Your task to perform on an android device: make emails show in primary in the gmail app Image 0: 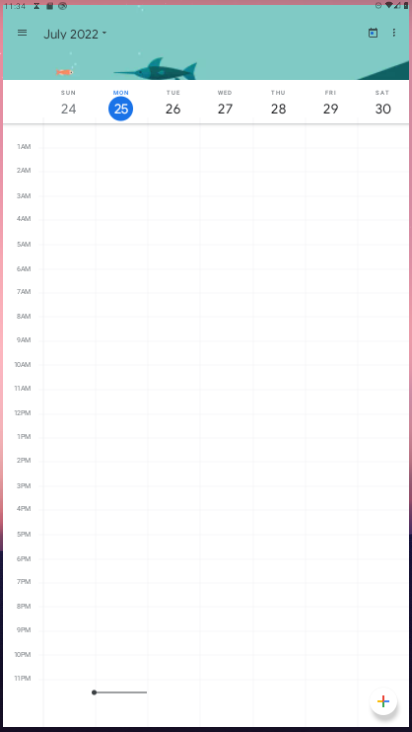
Step 0: press home button
Your task to perform on an android device: make emails show in primary in the gmail app Image 1: 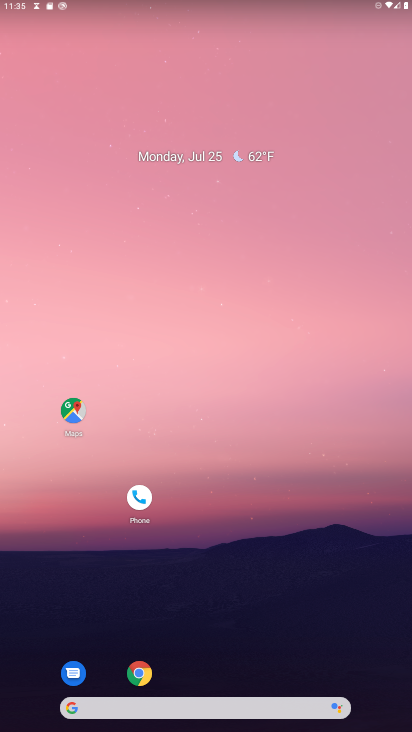
Step 1: drag from (192, 653) to (205, 94)
Your task to perform on an android device: make emails show in primary in the gmail app Image 2: 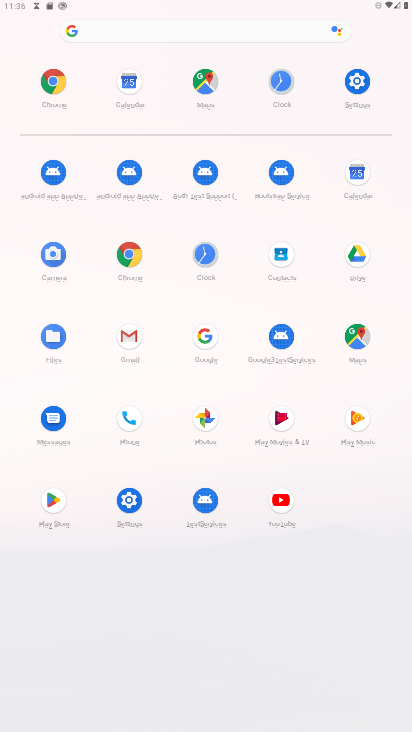
Step 2: click (126, 345)
Your task to perform on an android device: make emails show in primary in the gmail app Image 3: 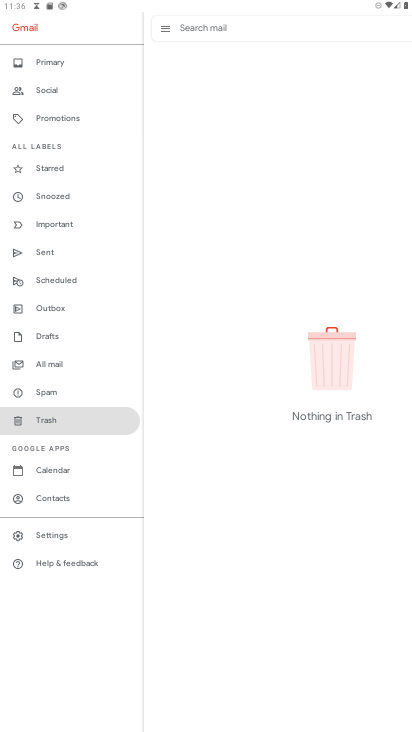
Step 3: click (41, 535)
Your task to perform on an android device: make emails show in primary in the gmail app Image 4: 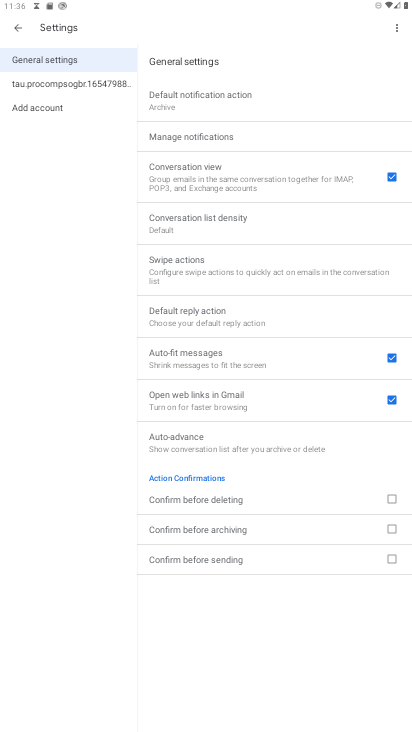
Step 4: click (53, 86)
Your task to perform on an android device: make emails show in primary in the gmail app Image 5: 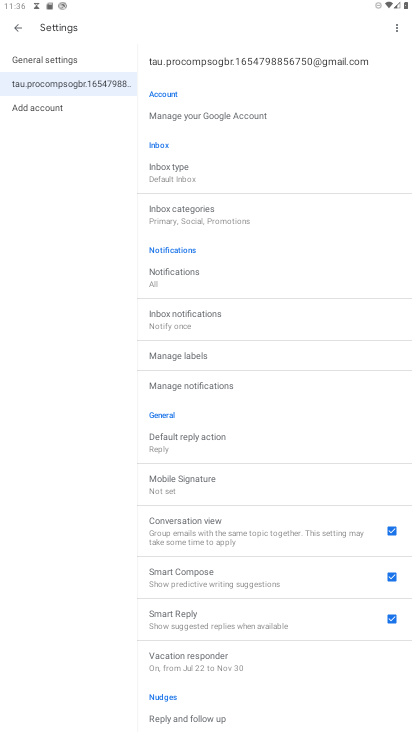
Step 5: drag from (351, 654) to (347, 208)
Your task to perform on an android device: make emails show in primary in the gmail app Image 6: 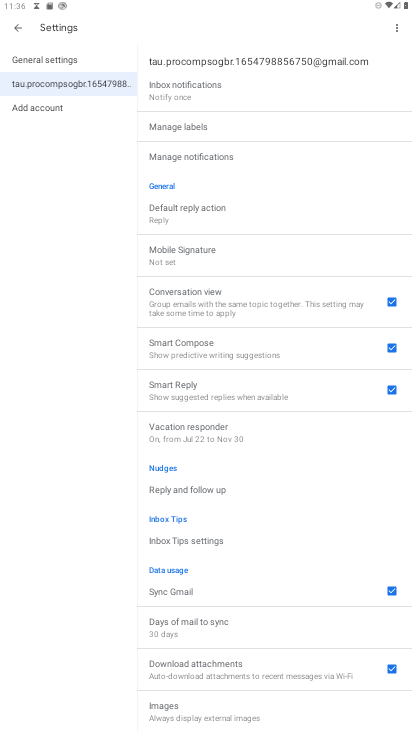
Step 6: drag from (348, 532) to (372, 3)
Your task to perform on an android device: make emails show in primary in the gmail app Image 7: 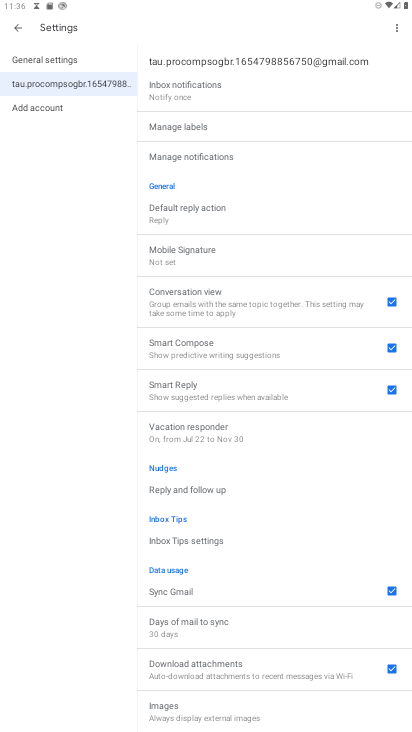
Step 7: drag from (335, 199) to (324, 719)
Your task to perform on an android device: make emails show in primary in the gmail app Image 8: 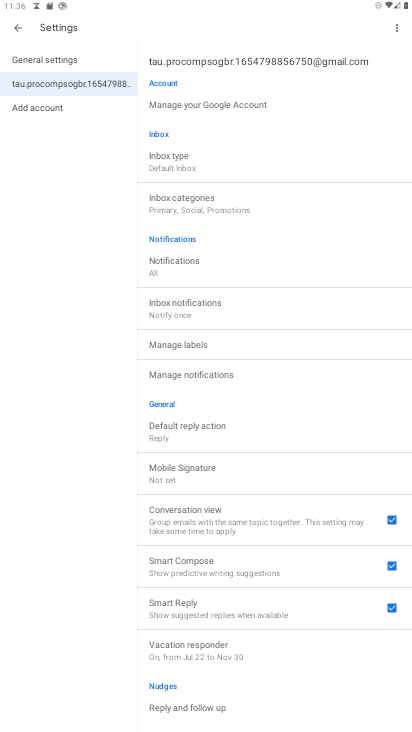
Step 8: click (194, 203)
Your task to perform on an android device: make emails show in primary in the gmail app Image 9: 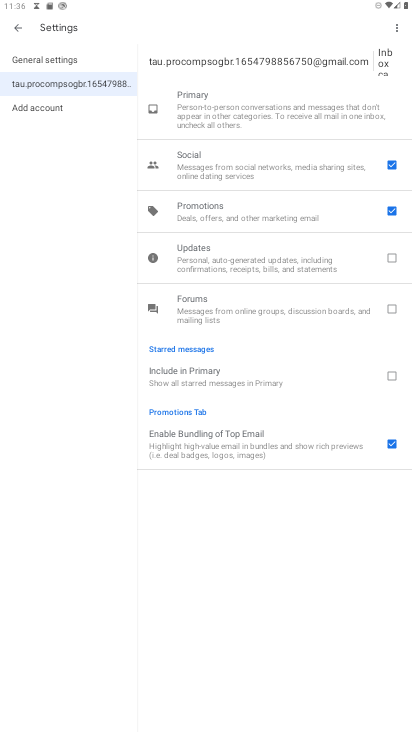
Step 9: click (392, 166)
Your task to perform on an android device: make emails show in primary in the gmail app Image 10: 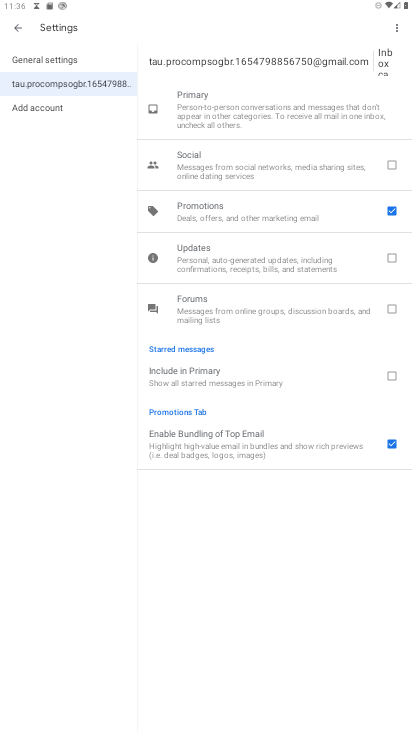
Step 10: click (393, 209)
Your task to perform on an android device: make emails show in primary in the gmail app Image 11: 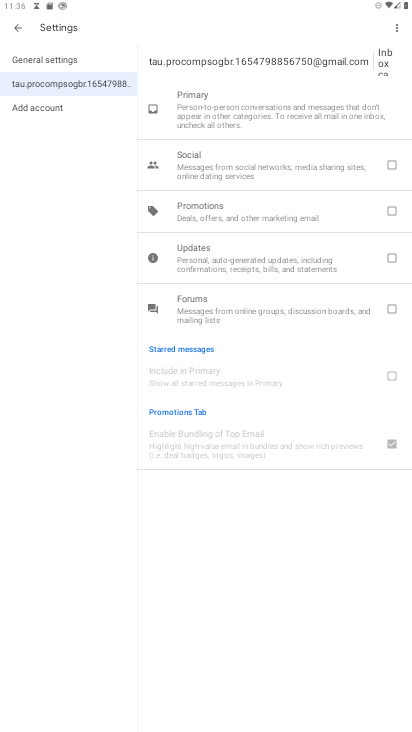
Step 11: task complete